Your task to perform on an android device: turn on the 24-hour format for clock Image 0: 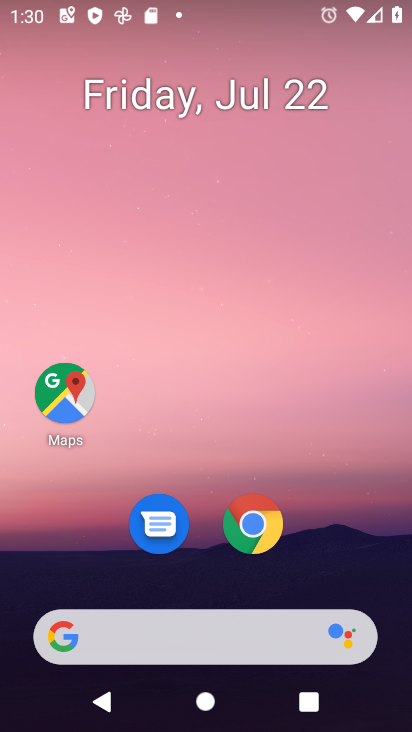
Step 0: drag from (175, 616) to (219, 212)
Your task to perform on an android device: turn on the 24-hour format for clock Image 1: 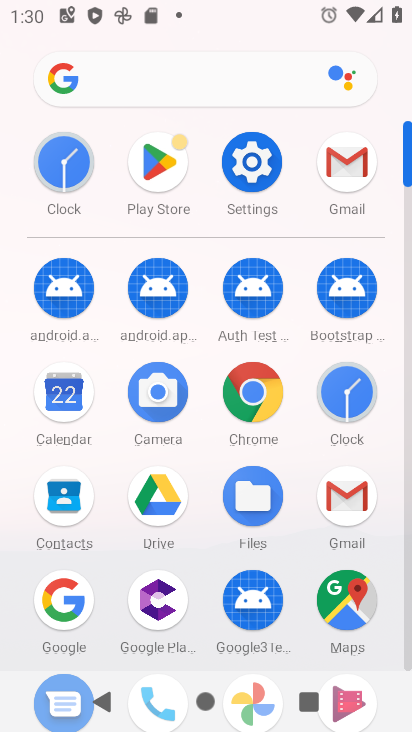
Step 1: click (352, 395)
Your task to perform on an android device: turn on the 24-hour format for clock Image 2: 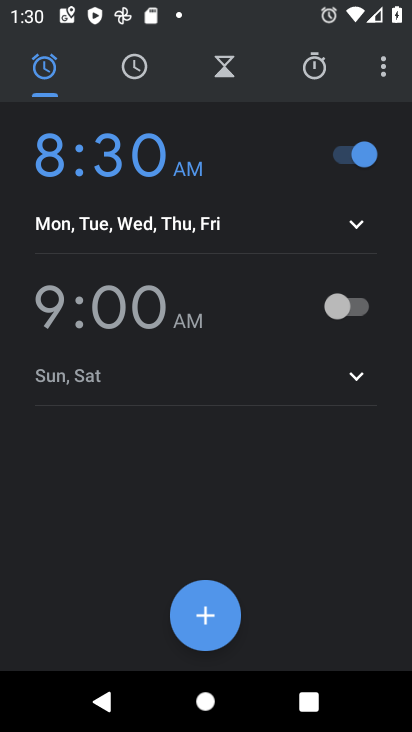
Step 2: click (384, 60)
Your task to perform on an android device: turn on the 24-hour format for clock Image 3: 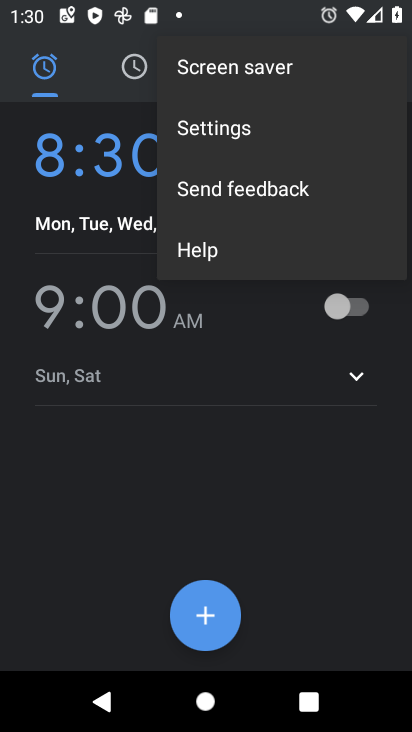
Step 3: click (227, 126)
Your task to perform on an android device: turn on the 24-hour format for clock Image 4: 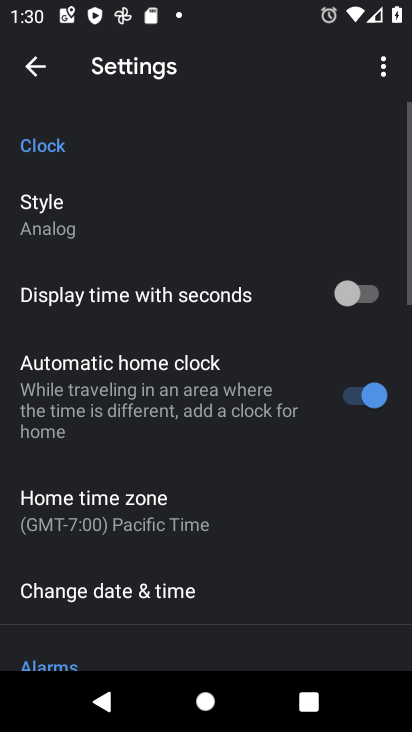
Step 4: drag from (205, 564) to (300, 198)
Your task to perform on an android device: turn on the 24-hour format for clock Image 5: 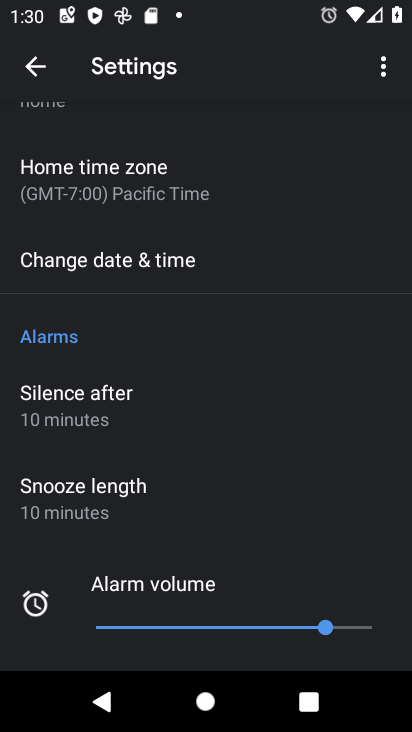
Step 5: click (158, 249)
Your task to perform on an android device: turn on the 24-hour format for clock Image 6: 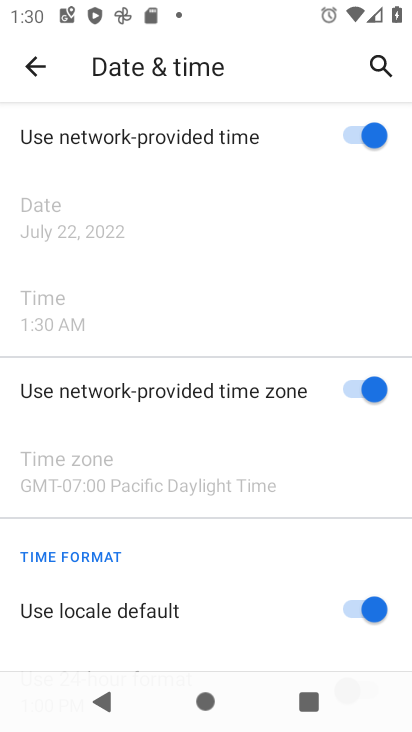
Step 6: drag from (210, 603) to (326, 255)
Your task to perform on an android device: turn on the 24-hour format for clock Image 7: 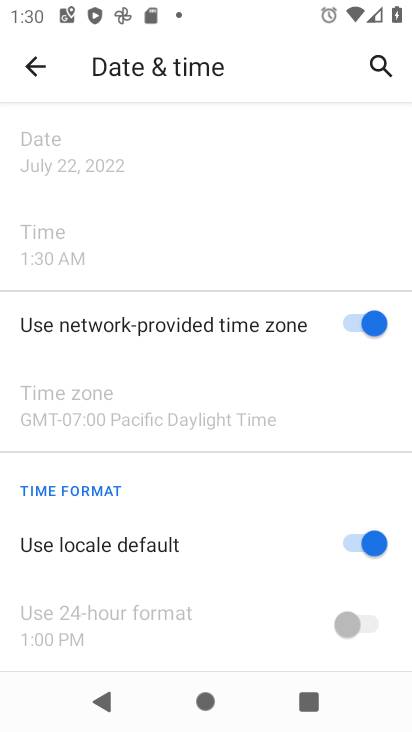
Step 7: click (354, 550)
Your task to perform on an android device: turn on the 24-hour format for clock Image 8: 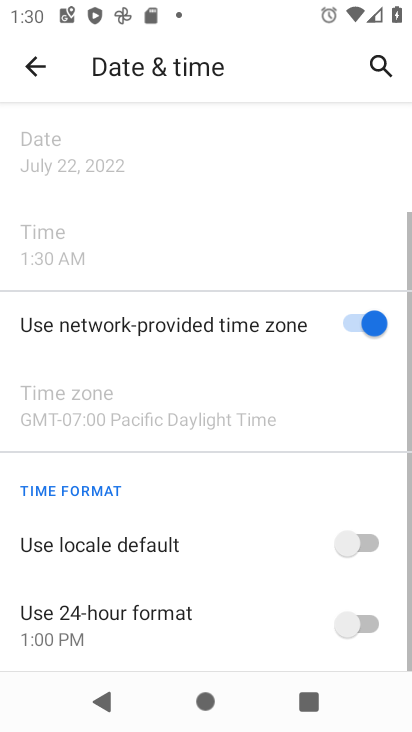
Step 8: click (361, 626)
Your task to perform on an android device: turn on the 24-hour format for clock Image 9: 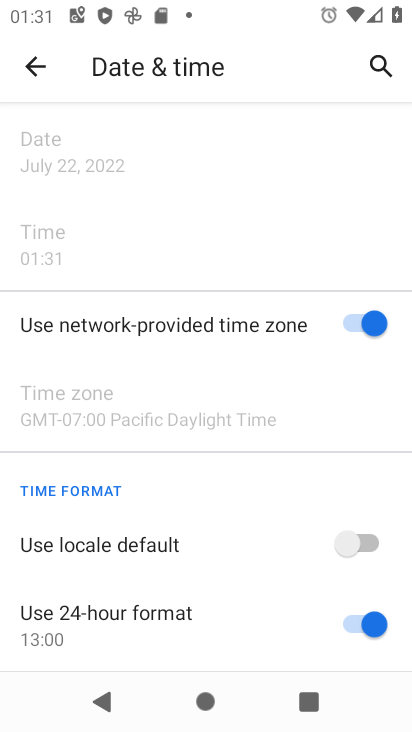
Step 9: task complete